Your task to perform on an android device: read, delete, or share a saved page in the chrome app Image 0: 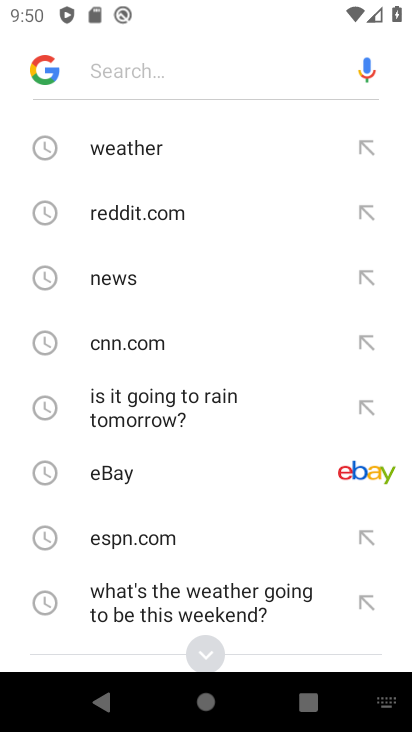
Step 0: press home button
Your task to perform on an android device: read, delete, or share a saved page in the chrome app Image 1: 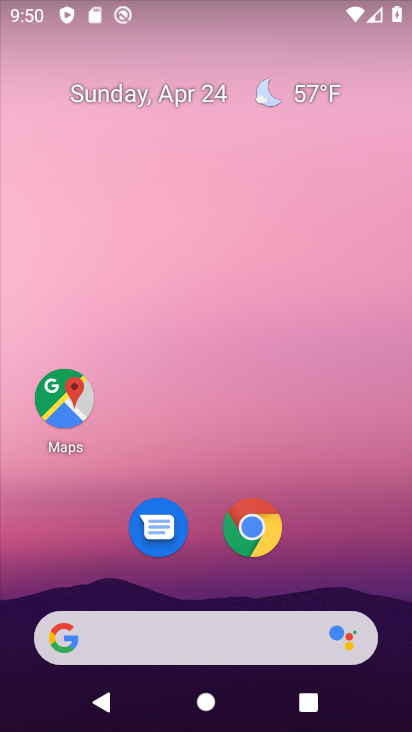
Step 1: drag from (274, 645) to (361, 5)
Your task to perform on an android device: read, delete, or share a saved page in the chrome app Image 2: 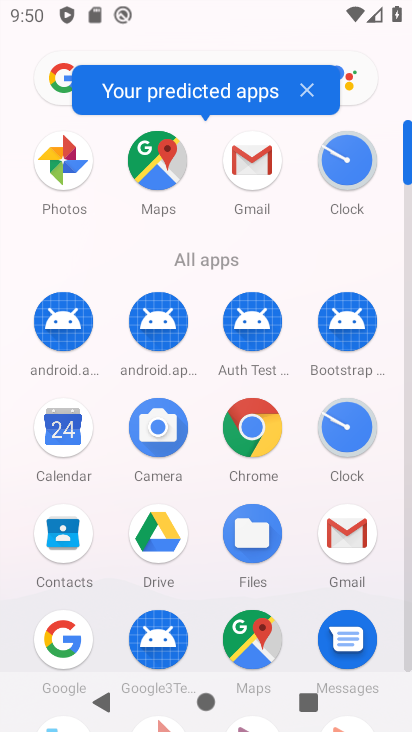
Step 2: click (247, 427)
Your task to perform on an android device: read, delete, or share a saved page in the chrome app Image 3: 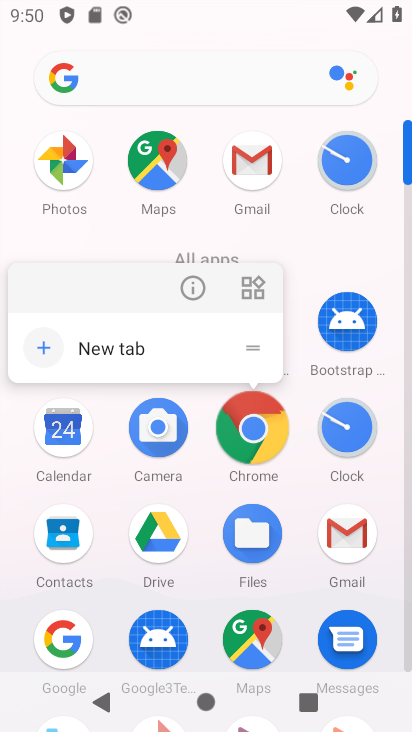
Step 3: click (251, 439)
Your task to perform on an android device: read, delete, or share a saved page in the chrome app Image 4: 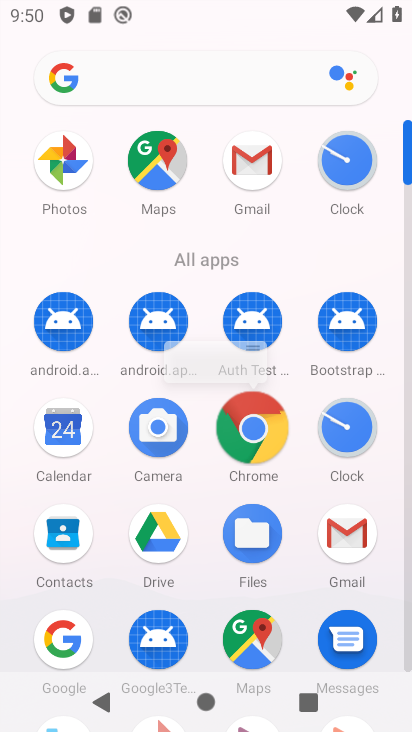
Step 4: click (251, 443)
Your task to perform on an android device: read, delete, or share a saved page in the chrome app Image 5: 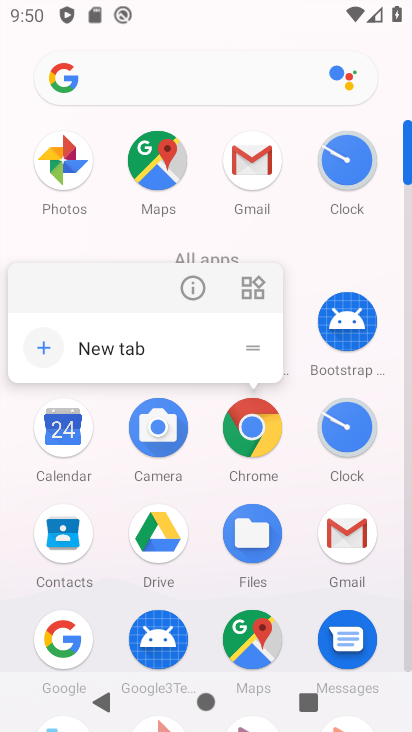
Step 5: click (251, 443)
Your task to perform on an android device: read, delete, or share a saved page in the chrome app Image 6: 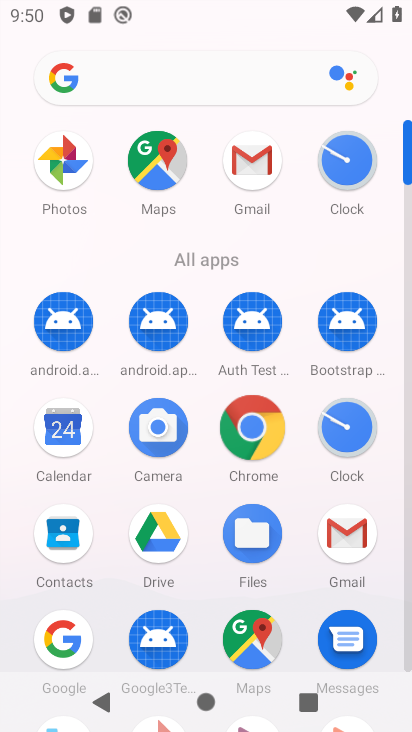
Step 6: drag from (250, 436) to (301, 446)
Your task to perform on an android device: read, delete, or share a saved page in the chrome app Image 7: 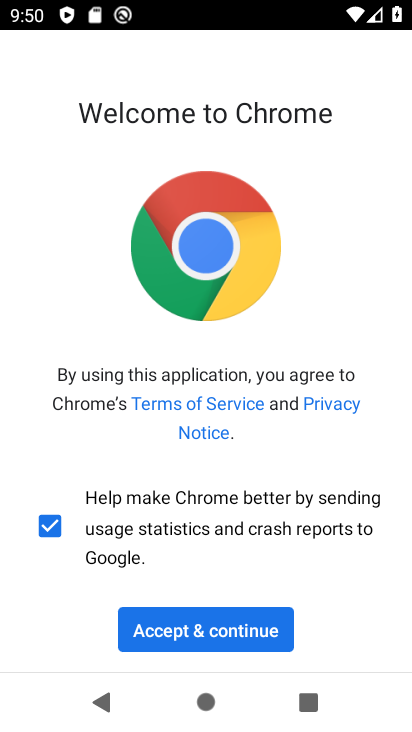
Step 7: click (209, 624)
Your task to perform on an android device: read, delete, or share a saved page in the chrome app Image 8: 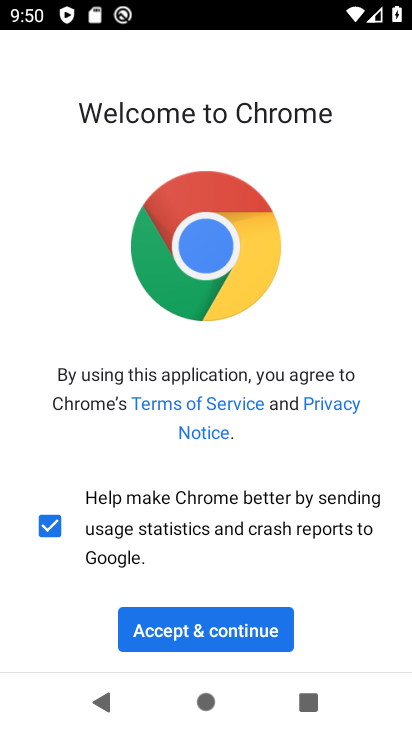
Step 8: click (209, 624)
Your task to perform on an android device: read, delete, or share a saved page in the chrome app Image 9: 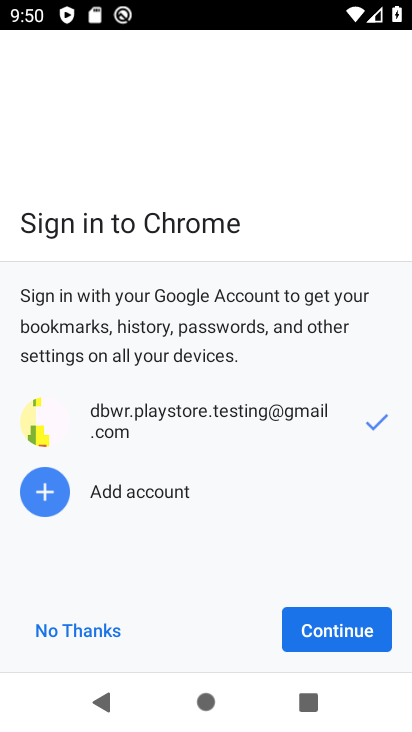
Step 9: click (314, 628)
Your task to perform on an android device: read, delete, or share a saved page in the chrome app Image 10: 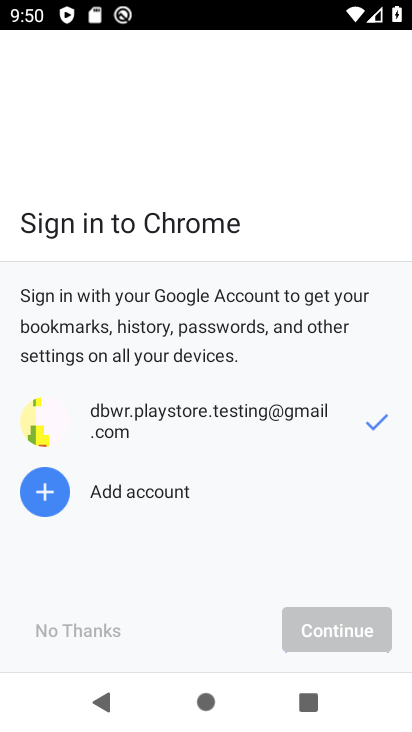
Step 10: click (357, 632)
Your task to perform on an android device: read, delete, or share a saved page in the chrome app Image 11: 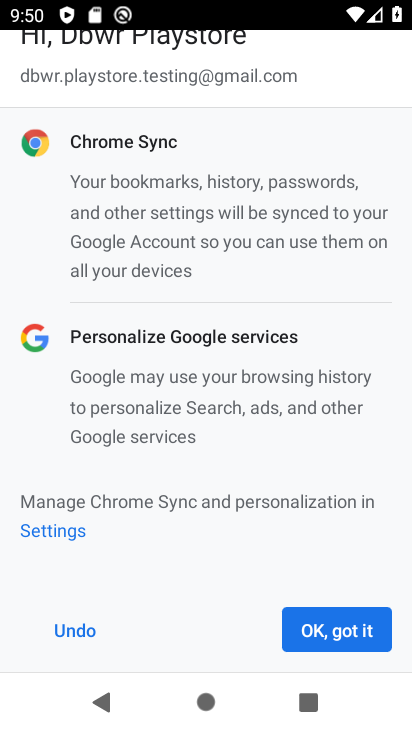
Step 11: click (338, 624)
Your task to perform on an android device: read, delete, or share a saved page in the chrome app Image 12: 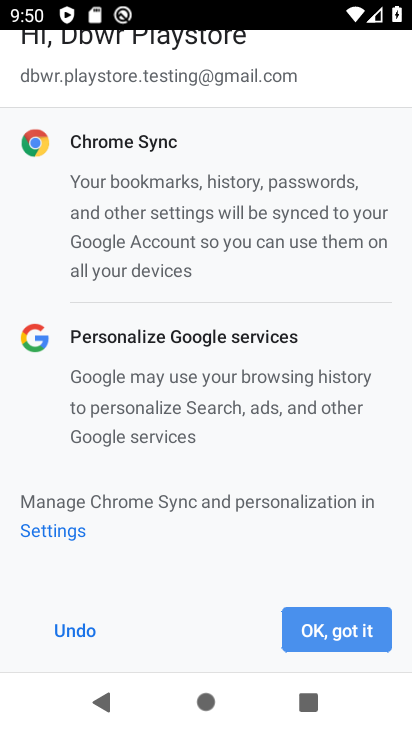
Step 12: click (342, 626)
Your task to perform on an android device: read, delete, or share a saved page in the chrome app Image 13: 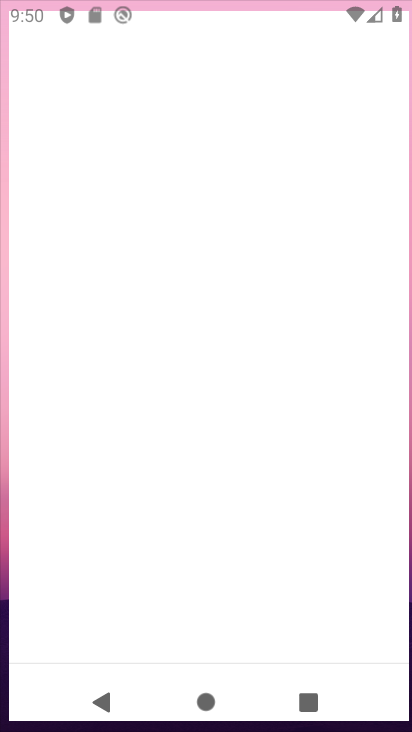
Step 13: click (348, 593)
Your task to perform on an android device: read, delete, or share a saved page in the chrome app Image 14: 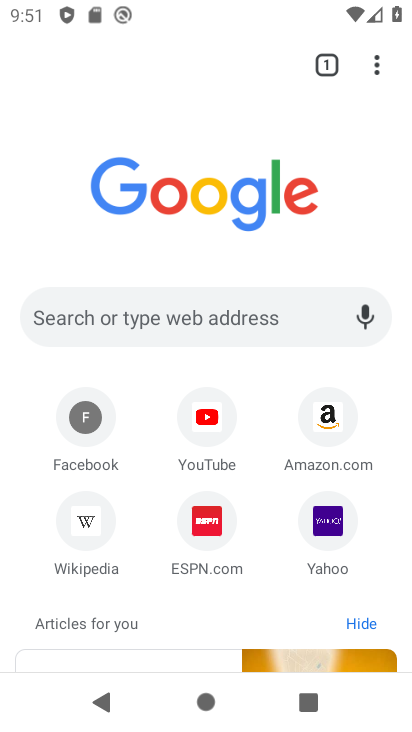
Step 14: drag from (374, 70) to (152, 466)
Your task to perform on an android device: read, delete, or share a saved page in the chrome app Image 15: 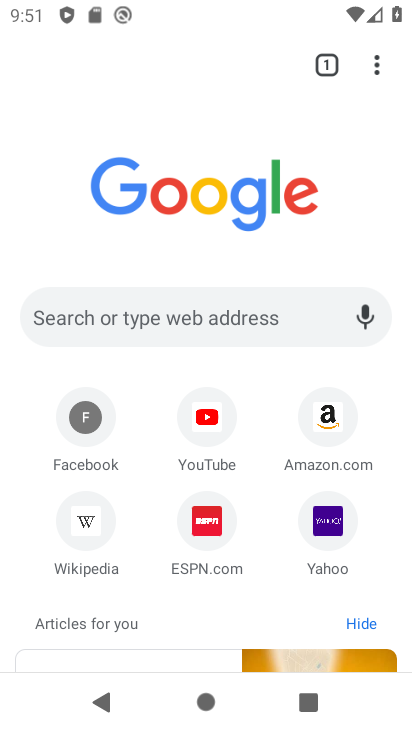
Step 15: drag from (376, 68) to (150, 431)
Your task to perform on an android device: read, delete, or share a saved page in the chrome app Image 16: 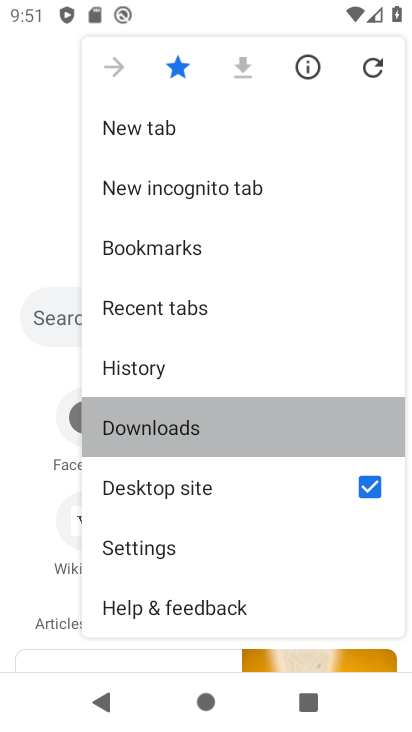
Step 16: click (150, 431)
Your task to perform on an android device: read, delete, or share a saved page in the chrome app Image 17: 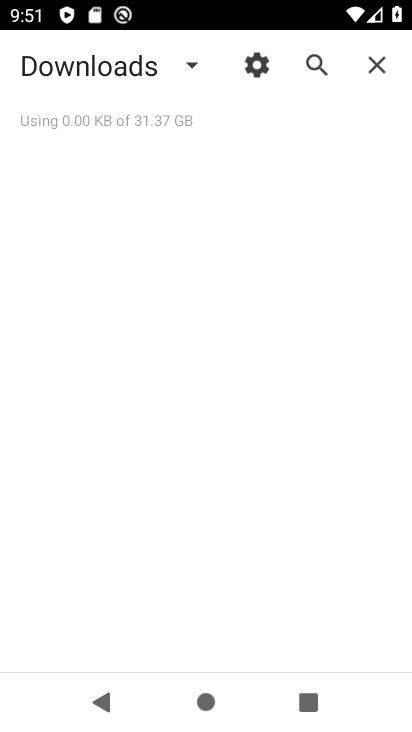
Step 17: click (189, 69)
Your task to perform on an android device: read, delete, or share a saved page in the chrome app Image 18: 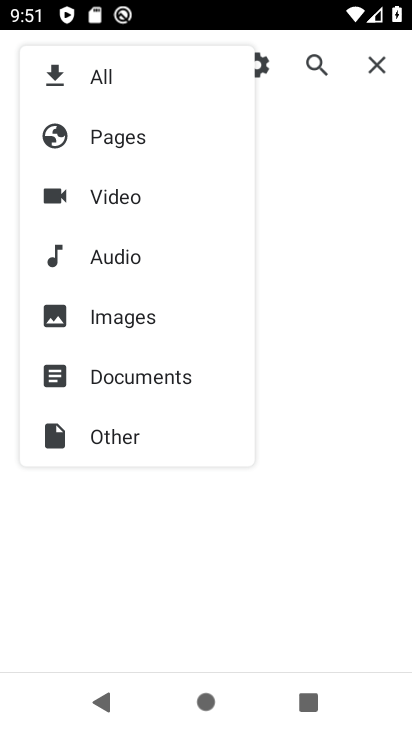
Step 18: click (105, 137)
Your task to perform on an android device: read, delete, or share a saved page in the chrome app Image 19: 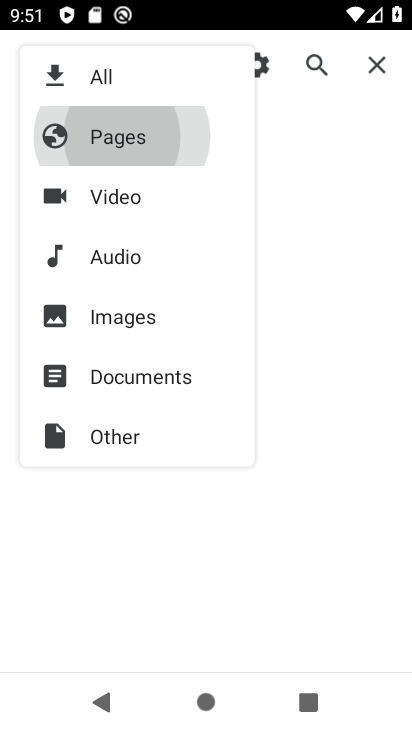
Step 19: click (105, 136)
Your task to perform on an android device: read, delete, or share a saved page in the chrome app Image 20: 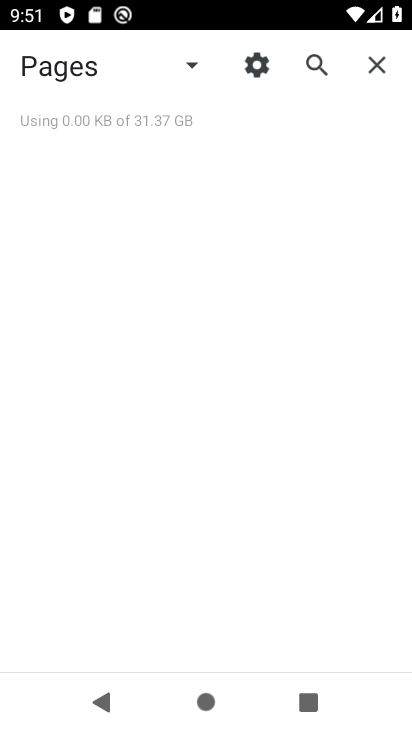
Step 20: task complete